Your task to perform on an android device: set an alarm Image 0: 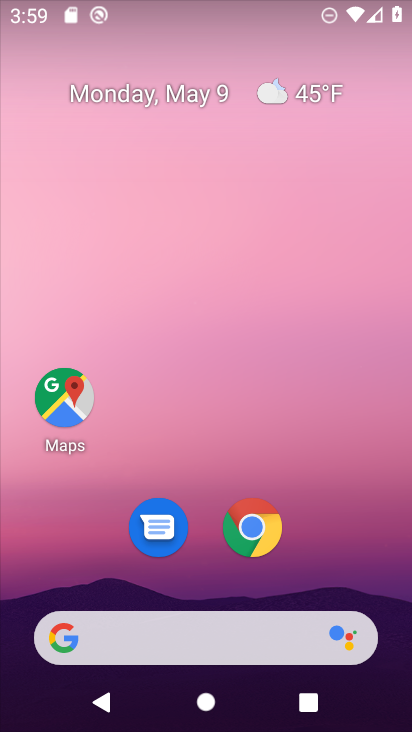
Step 0: drag from (394, 620) to (289, 231)
Your task to perform on an android device: set an alarm Image 1: 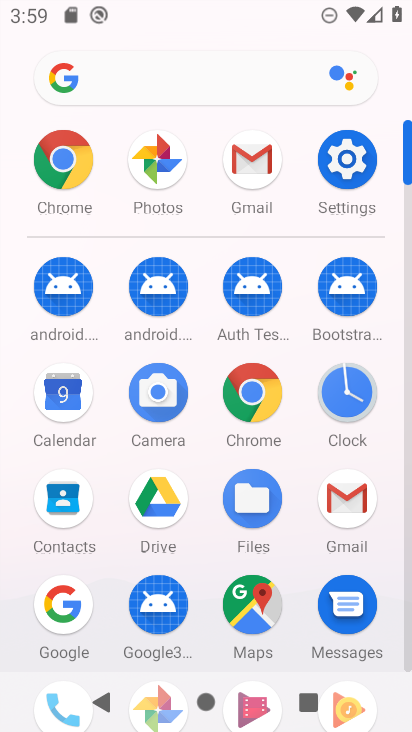
Step 1: click (339, 380)
Your task to perform on an android device: set an alarm Image 2: 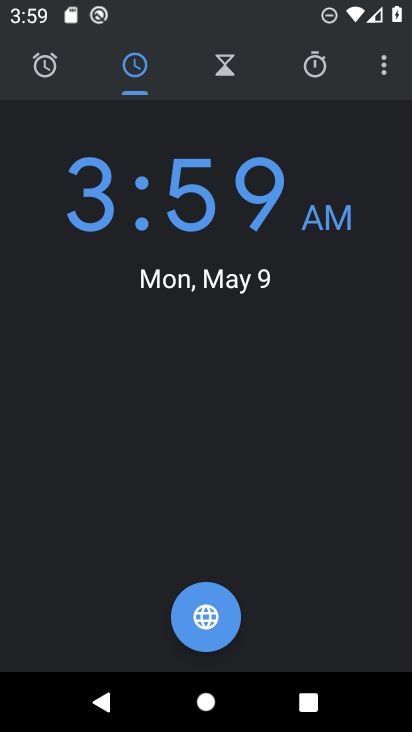
Step 2: click (37, 73)
Your task to perform on an android device: set an alarm Image 3: 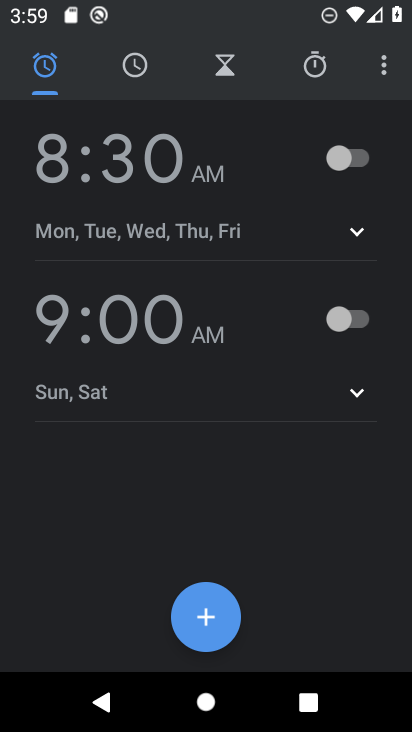
Step 3: click (210, 597)
Your task to perform on an android device: set an alarm Image 4: 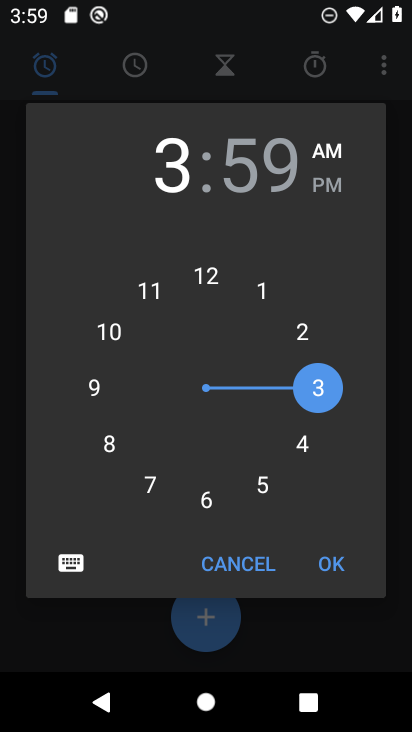
Step 4: click (340, 552)
Your task to perform on an android device: set an alarm Image 5: 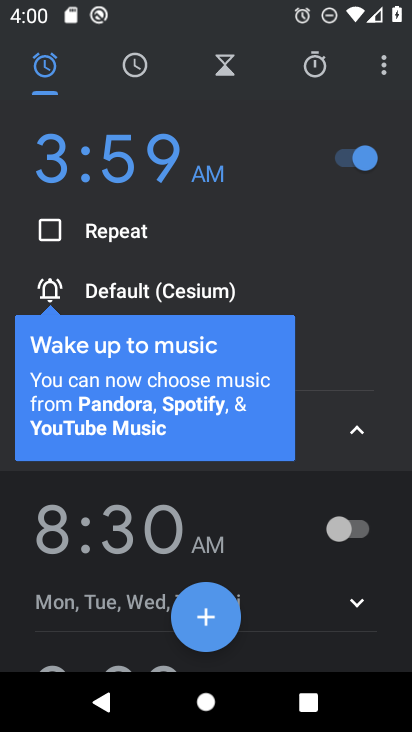
Step 5: task complete